Your task to perform on an android device: Play the last video I watched on Youtube Image 0: 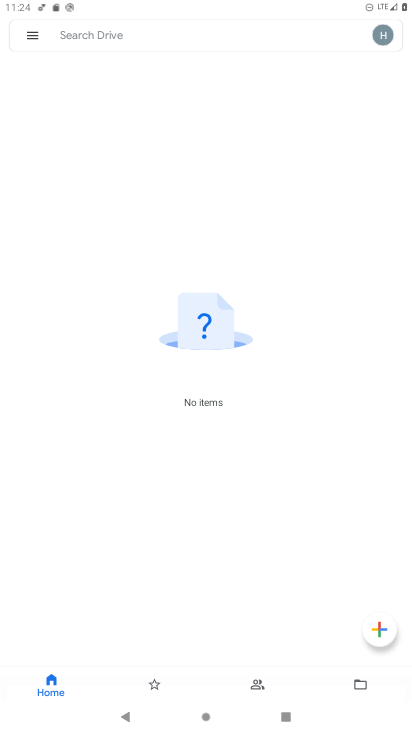
Step 0: press home button
Your task to perform on an android device: Play the last video I watched on Youtube Image 1: 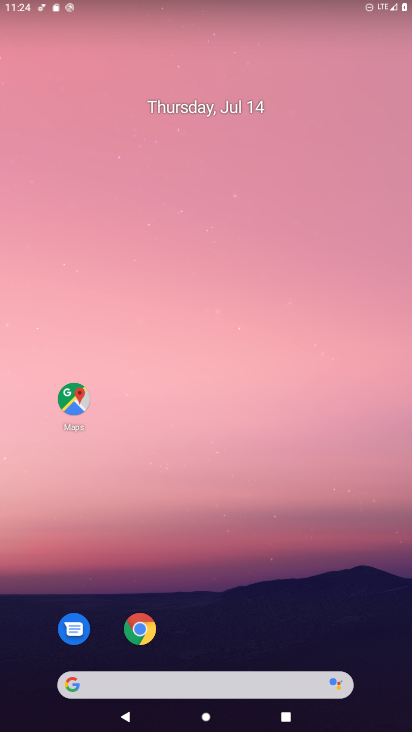
Step 1: drag from (288, 671) to (257, 90)
Your task to perform on an android device: Play the last video I watched on Youtube Image 2: 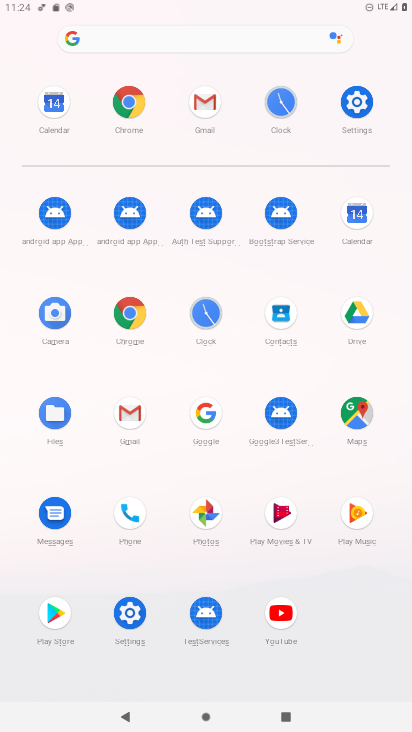
Step 2: click (282, 626)
Your task to perform on an android device: Play the last video I watched on Youtube Image 3: 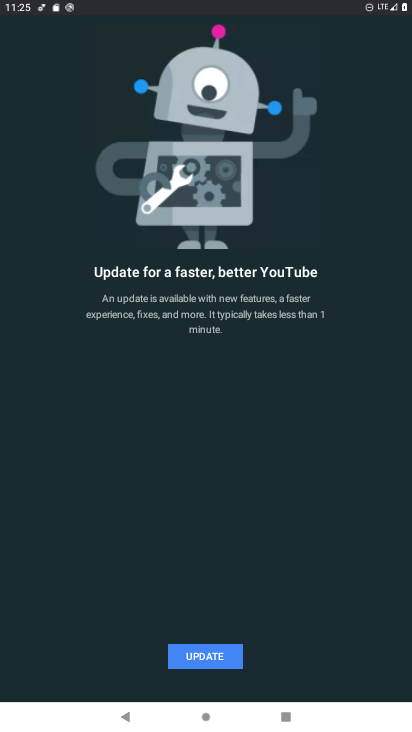
Step 3: click (216, 654)
Your task to perform on an android device: Play the last video I watched on Youtube Image 4: 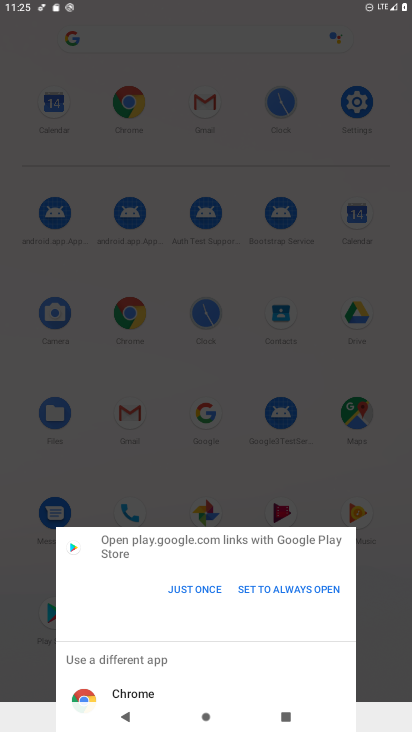
Step 4: drag from (179, 677) to (199, 550)
Your task to perform on an android device: Play the last video I watched on Youtube Image 5: 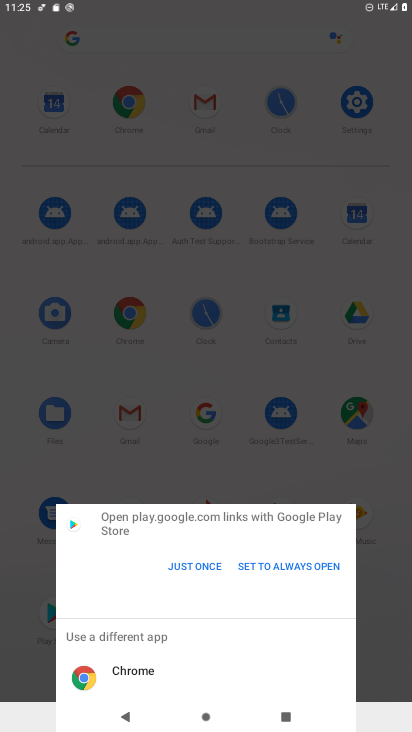
Step 5: click (195, 566)
Your task to perform on an android device: Play the last video I watched on Youtube Image 6: 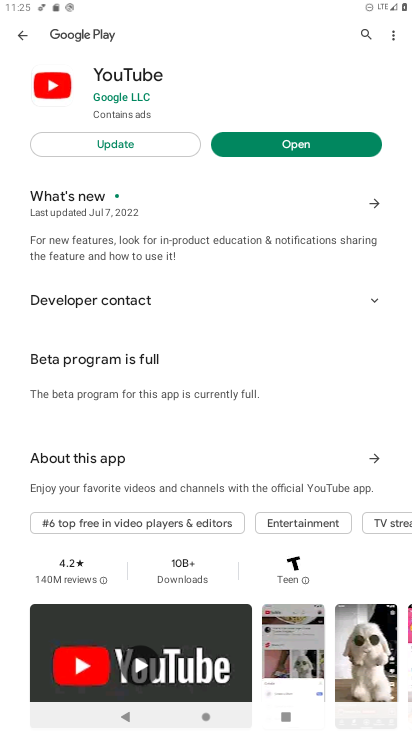
Step 6: click (154, 140)
Your task to perform on an android device: Play the last video I watched on Youtube Image 7: 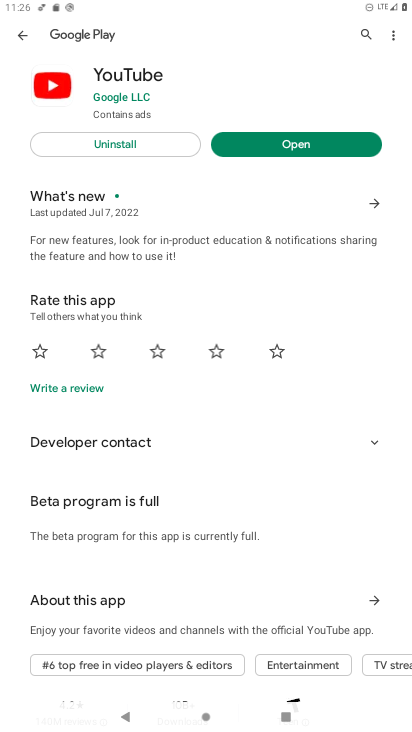
Step 7: task complete